Your task to perform on an android device: turn off data saver in the chrome app Image 0: 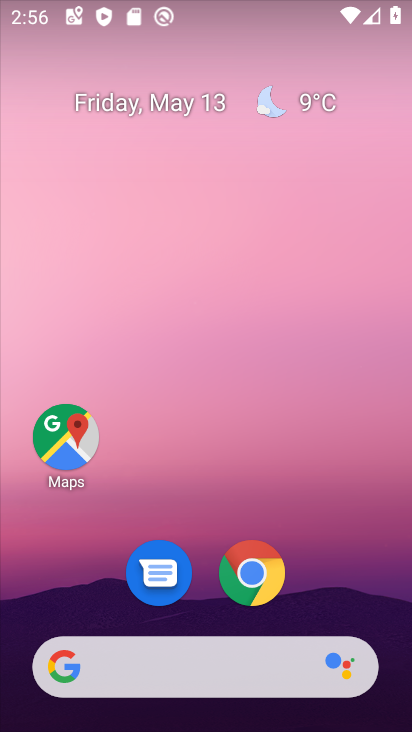
Step 0: drag from (248, 598) to (282, 80)
Your task to perform on an android device: turn off data saver in the chrome app Image 1: 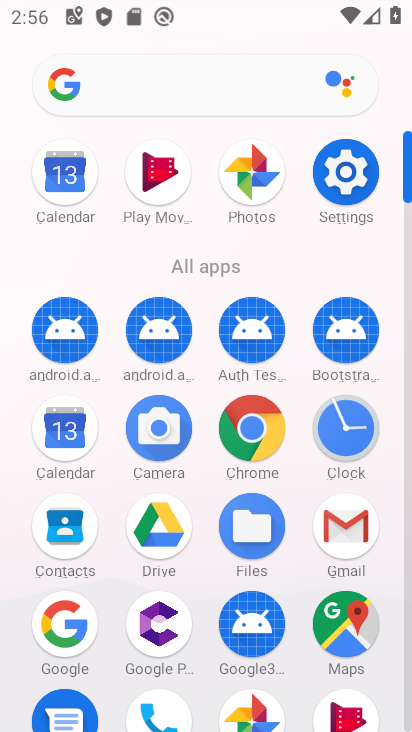
Step 1: click (249, 439)
Your task to perform on an android device: turn off data saver in the chrome app Image 2: 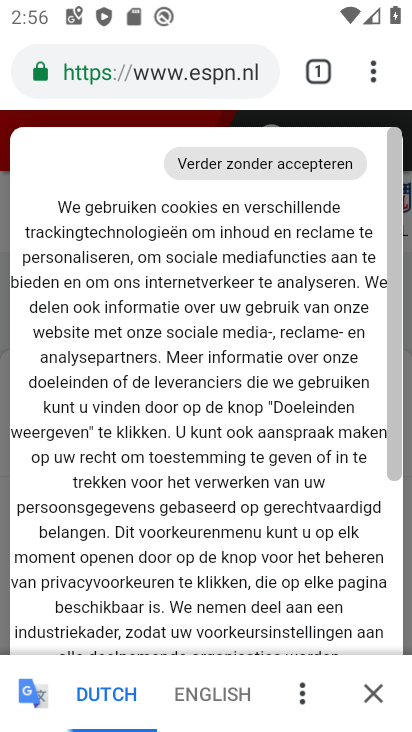
Step 2: drag from (379, 77) to (113, 573)
Your task to perform on an android device: turn off data saver in the chrome app Image 3: 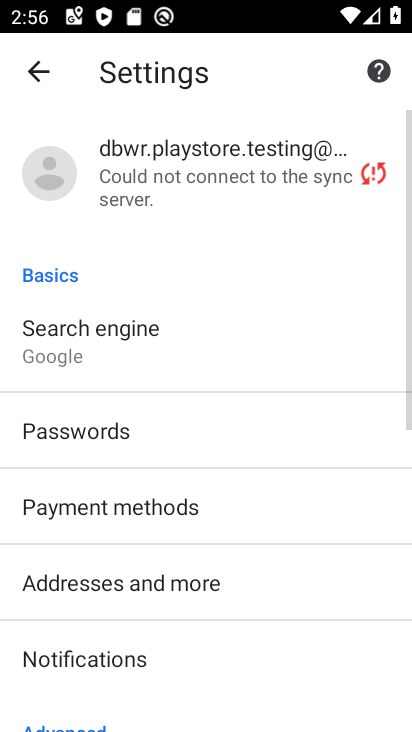
Step 3: drag from (113, 601) to (273, 66)
Your task to perform on an android device: turn off data saver in the chrome app Image 4: 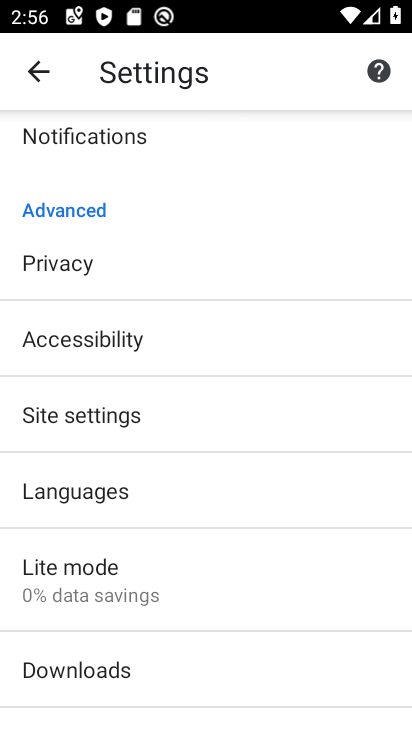
Step 4: click (86, 411)
Your task to perform on an android device: turn off data saver in the chrome app Image 5: 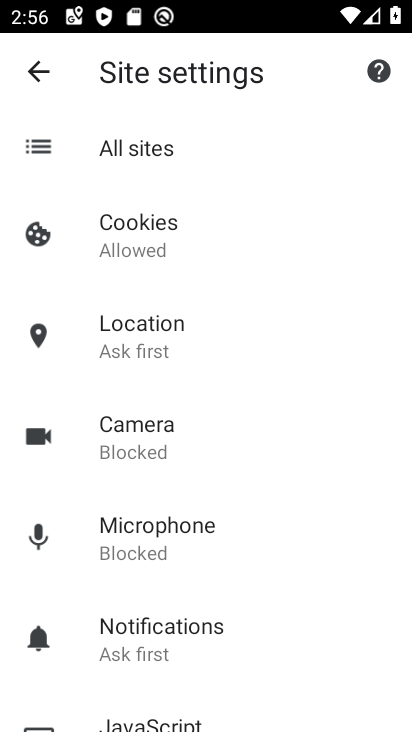
Step 5: drag from (174, 625) to (297, 105)
Your task to perform on an android device: turn off data saver in the chrome app Image 6: 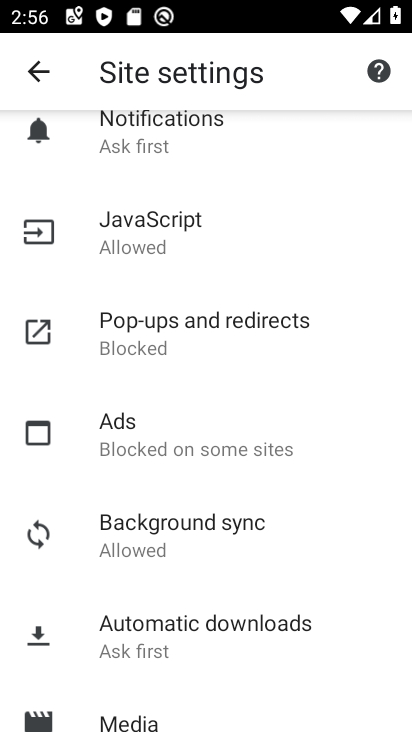
Step 6: click (35, 64)
Your task to perform on an android device: turn off data saver in the chrome app Image 7: 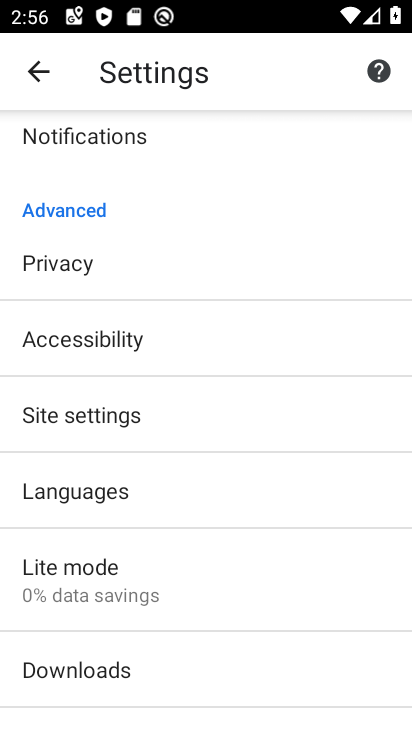
Step 7: click (140, 415)
Your task to perform on an android device: turn off data saver in the chrome app Image 8: 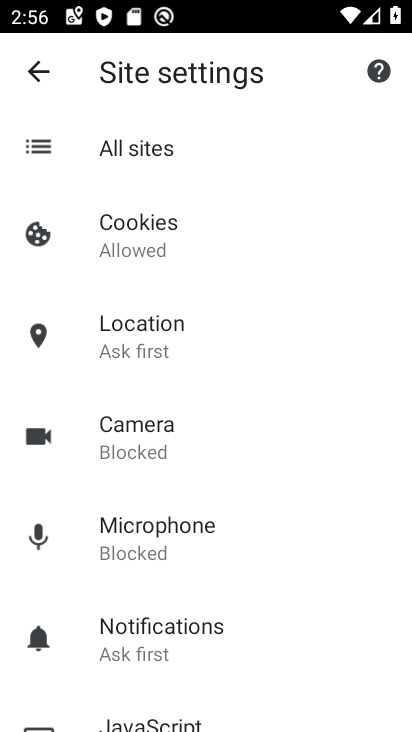
Step 8: click (37, 76)
Your task to perform on an android device: turn off data saver in the chrome app Image 9: 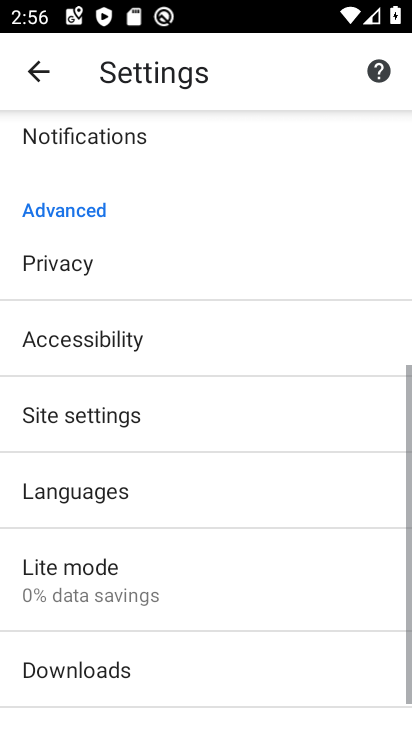
Step 9: click (117, 583)
Your task to perform on an android device: turn off data saver in the chrome app Image 10: 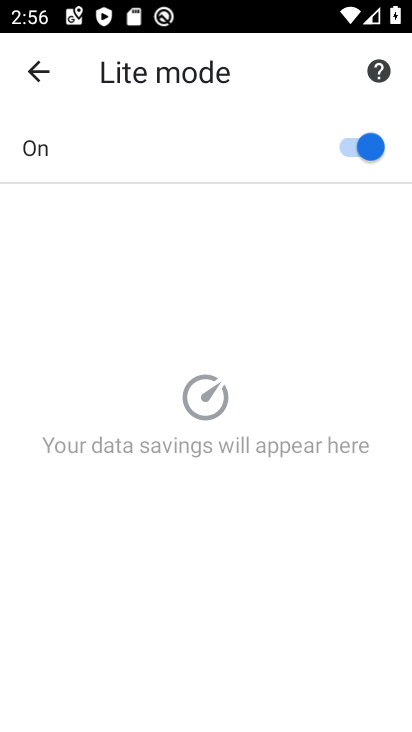
Step 10: click (357, 149)
Your task to perform on an android device: turn off data saver in the chrome app Image 11: 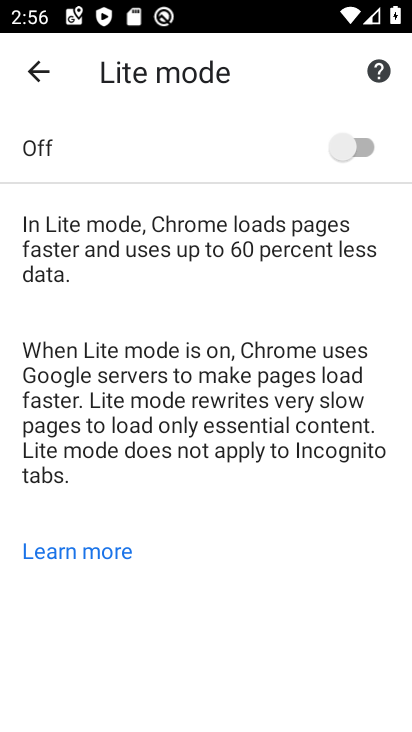
Step 11: task complete